Your task to perform on an android device: turn off javascript in the chrome app Image 0: 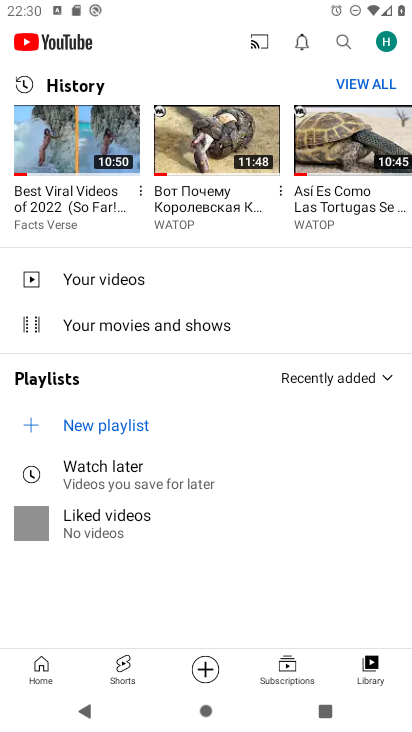
Step 0: press home button
Your task to perform on an android device: turn off javascript in the chrome app Image 1: 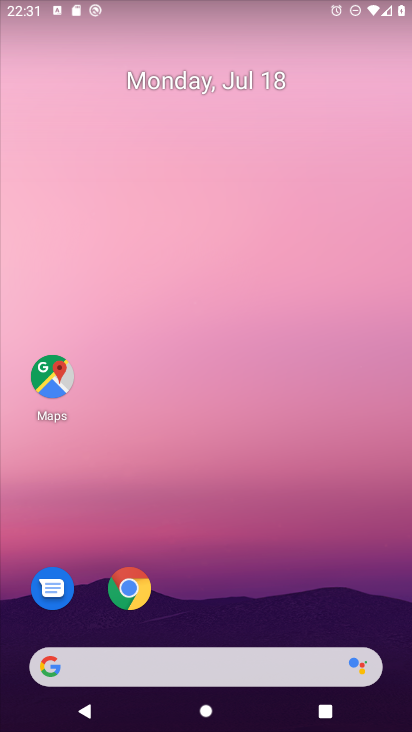
Step 1: click (128, 590)
Your task to perform on an android device: turn off javascript in the chrome app Image 2: 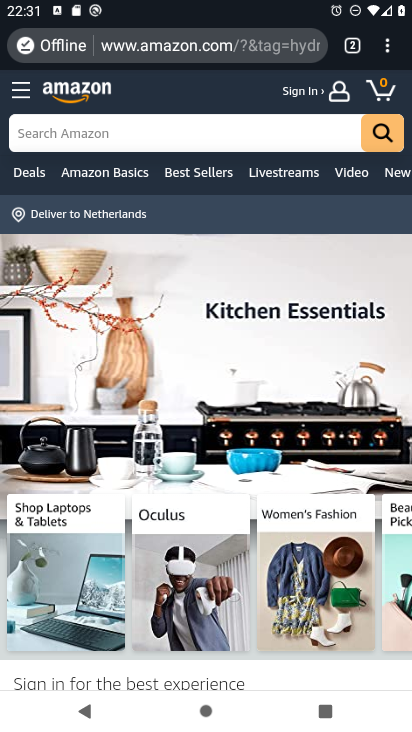
Step 2: click (389, 53)
Your task to perform on an android device: turn off javascript in the chrome app Image 3: 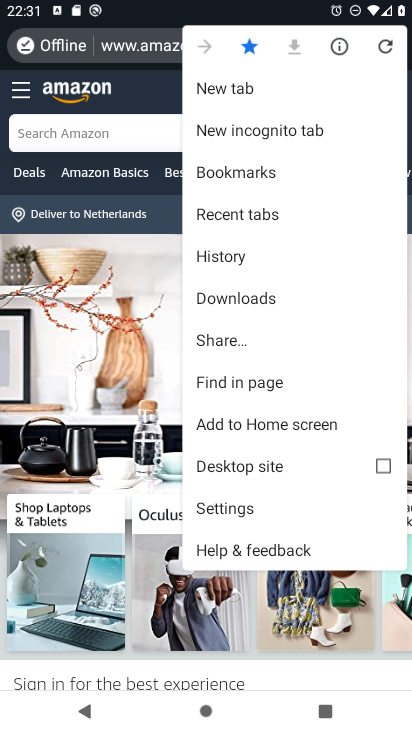
Step 3: click (227, 508)
Your task to perform on an android device: turn off javascript in the chrome app Image 4: 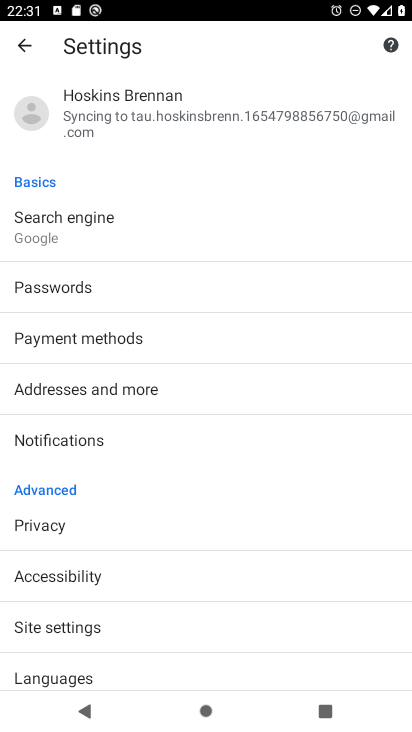
Step 4: click (57, 631)
Your task to perform on an android device: turn off javascript in the chrome app Image 5: 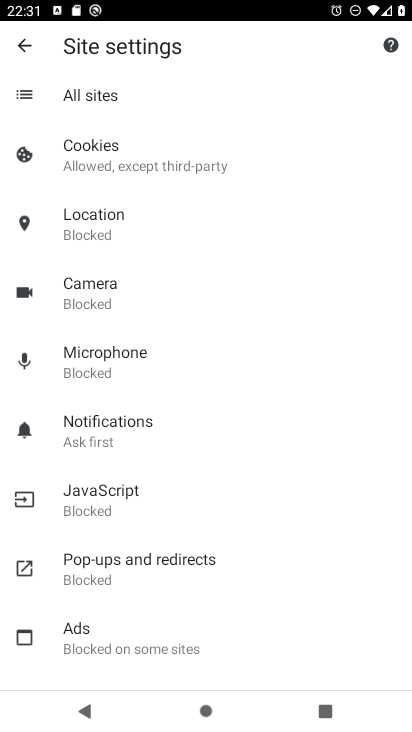
Step 5: click (96, 487)
Your task to perform on an android device: turn off javascript in the chrome app Image 6: 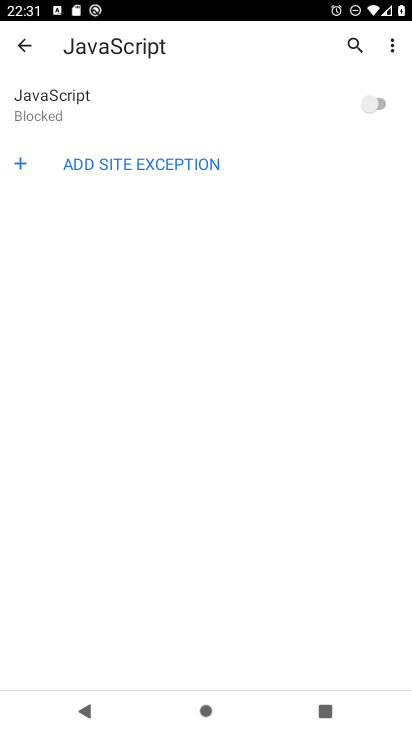
Step 6: task complete